Your task to perform on an android device: search for starred emails in the gmail app Image 0: 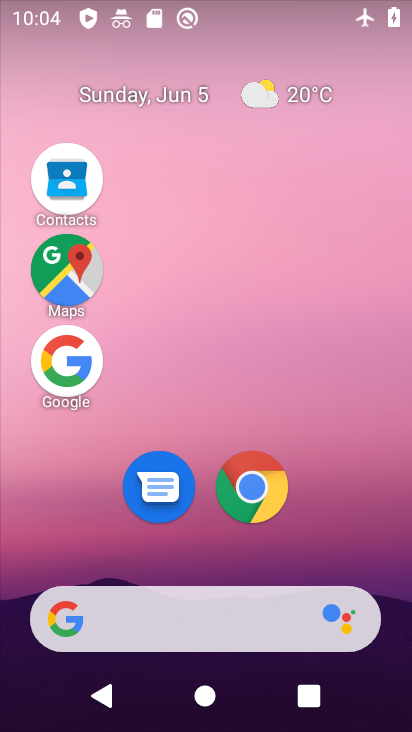
Step 0: drag from (182, 526) to (196, 175)
Your task to perform on an android device: search for starred emails in the gmail app Image 1: 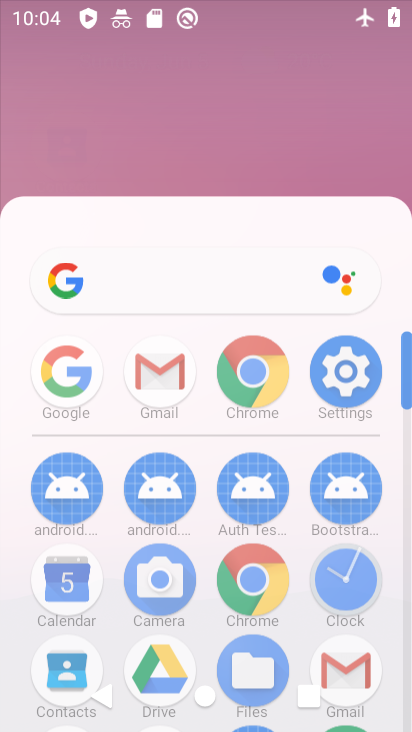
Step 1: click (195, 79)
Your task to perform on an android device: search for starred emails in the gmail app Image 2: 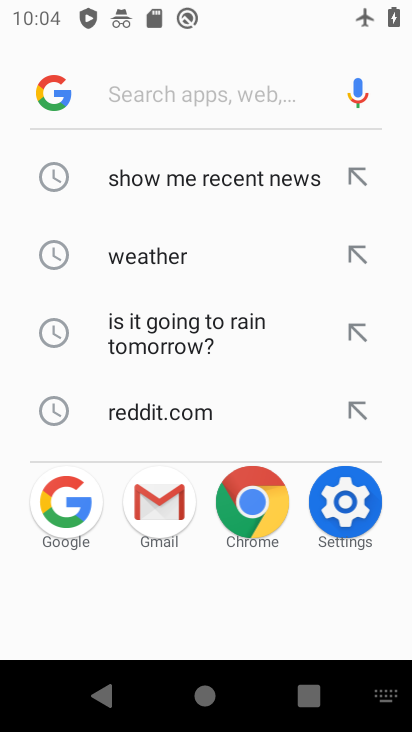
Step 2: press back button
Your task to perform on an android device: search for starred emails in the gmail app Image 3: 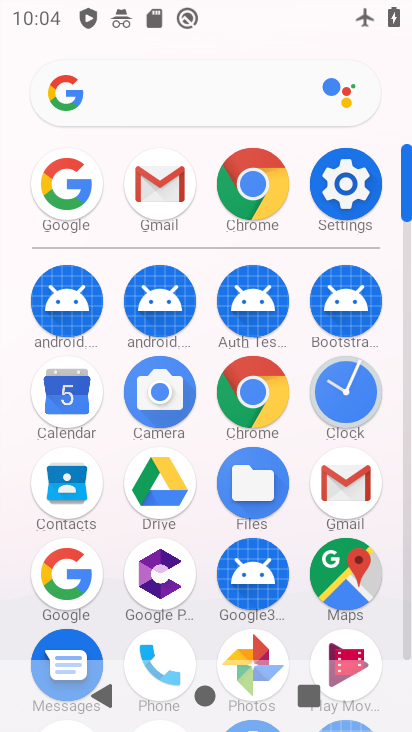
Step 3: click (363, 471)
Your task to perform on an android device: search for starred emails in the gmail app Image 4: 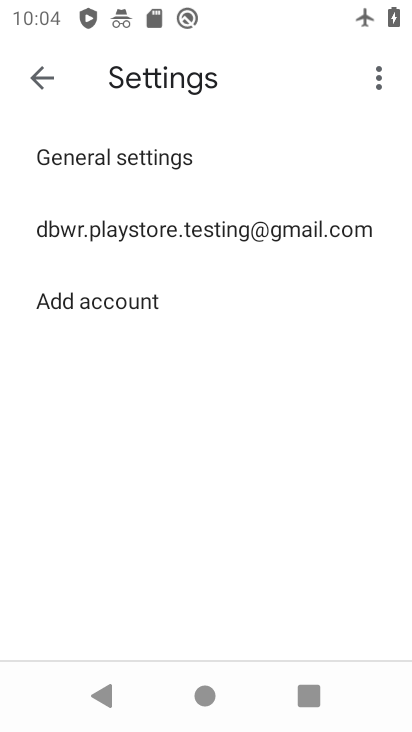
Step 4: click (48, 89)
Your task to perform on an android device: search for starred emails in the gmail app Image 5: 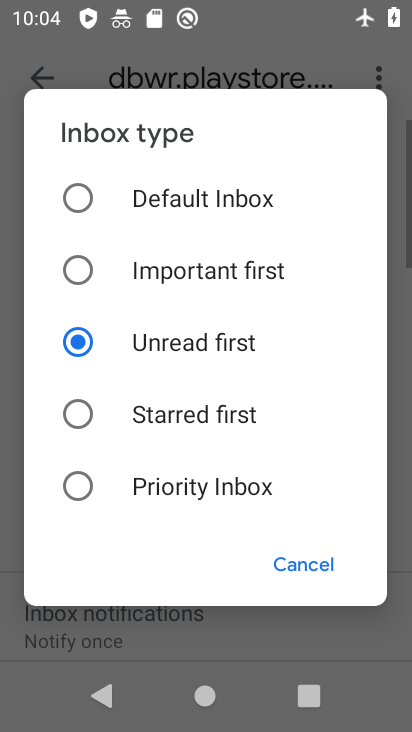
Step 5: click (114, 62)
Your task to perform on an android device: search for starred emails in the gmail app Image 6: 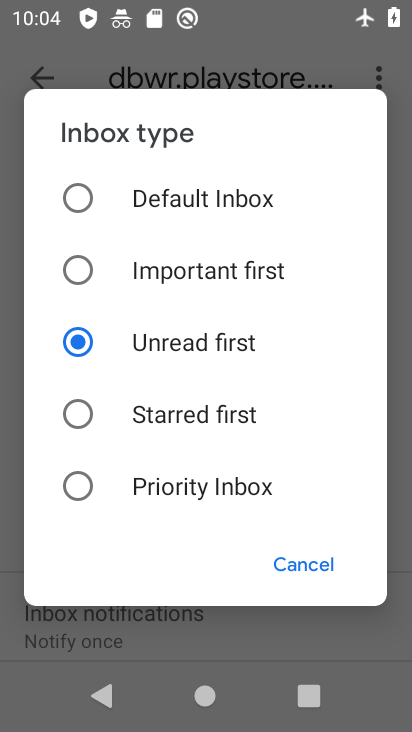
Step 6: press back button
Your task to perform on an android device: search for starred emails in the gmail app Image 7: 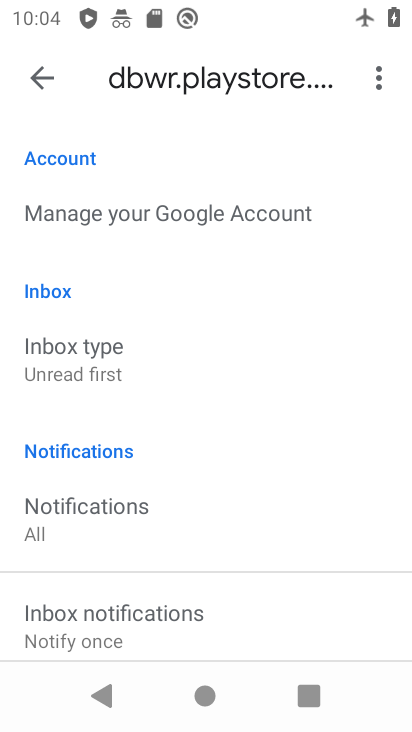
Step 7: click (53, 95)
Your task to perform on an android device: search for starred emails in the gmail app Image 8: 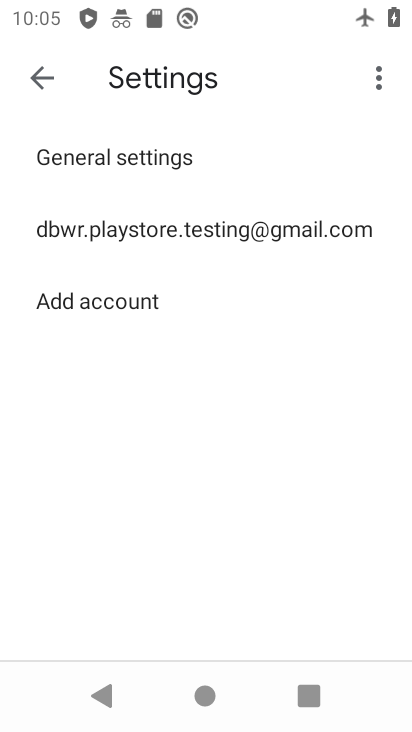
Step 8: click (48, 80)
Your task to perform on an android device: search for starred emails in the gmail app Image 9: 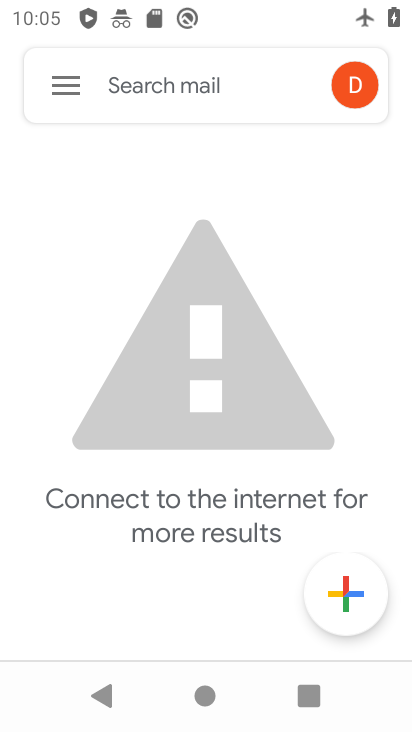
Step 9: click (75, 88)
Your task to perform on an android device: search for starred emails in the gmail app Image 10: 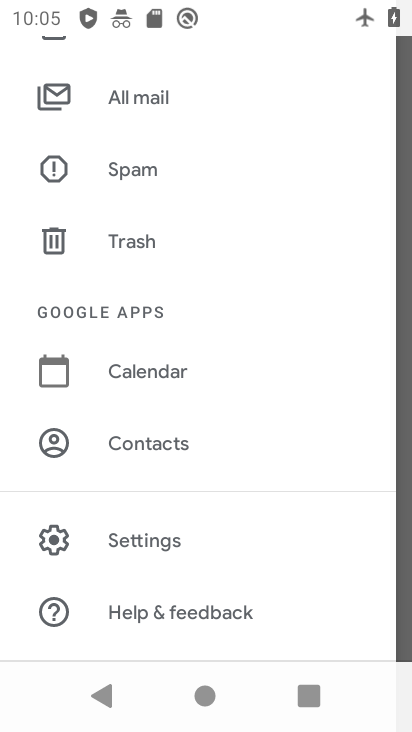
Step 10: drag from (174, 312) to (172, 626)
Your task to perform on an android device: search for starred emails in the gmail app Image 11: 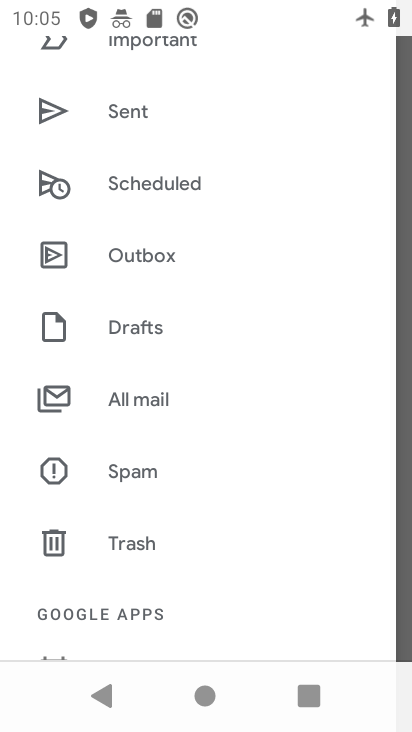
Step 11: drag from (157, 241) to (158, 655)
Your task to perform on an android device: search for starred emails in the gmail app Image 12: 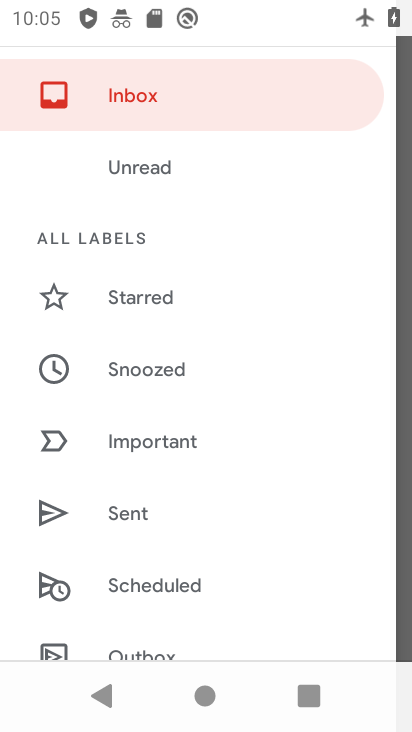
Step 12: click (174, 298)
Your task to perform on an android device: search for starred emails in the gmail app Image 13: 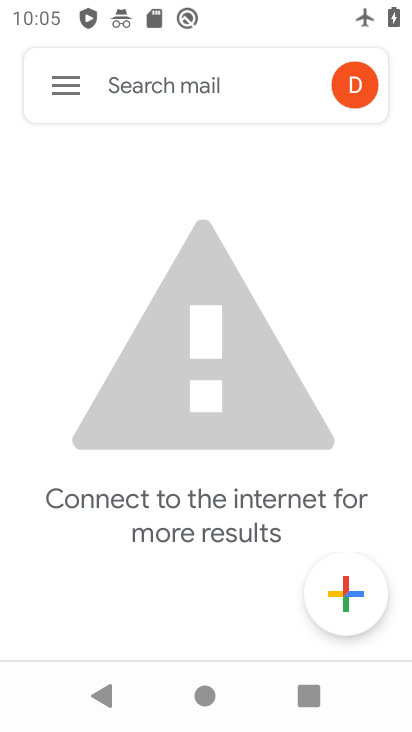
Step 13: task complete